Your task to perform on an android device: change the clock display to analog Image 0: 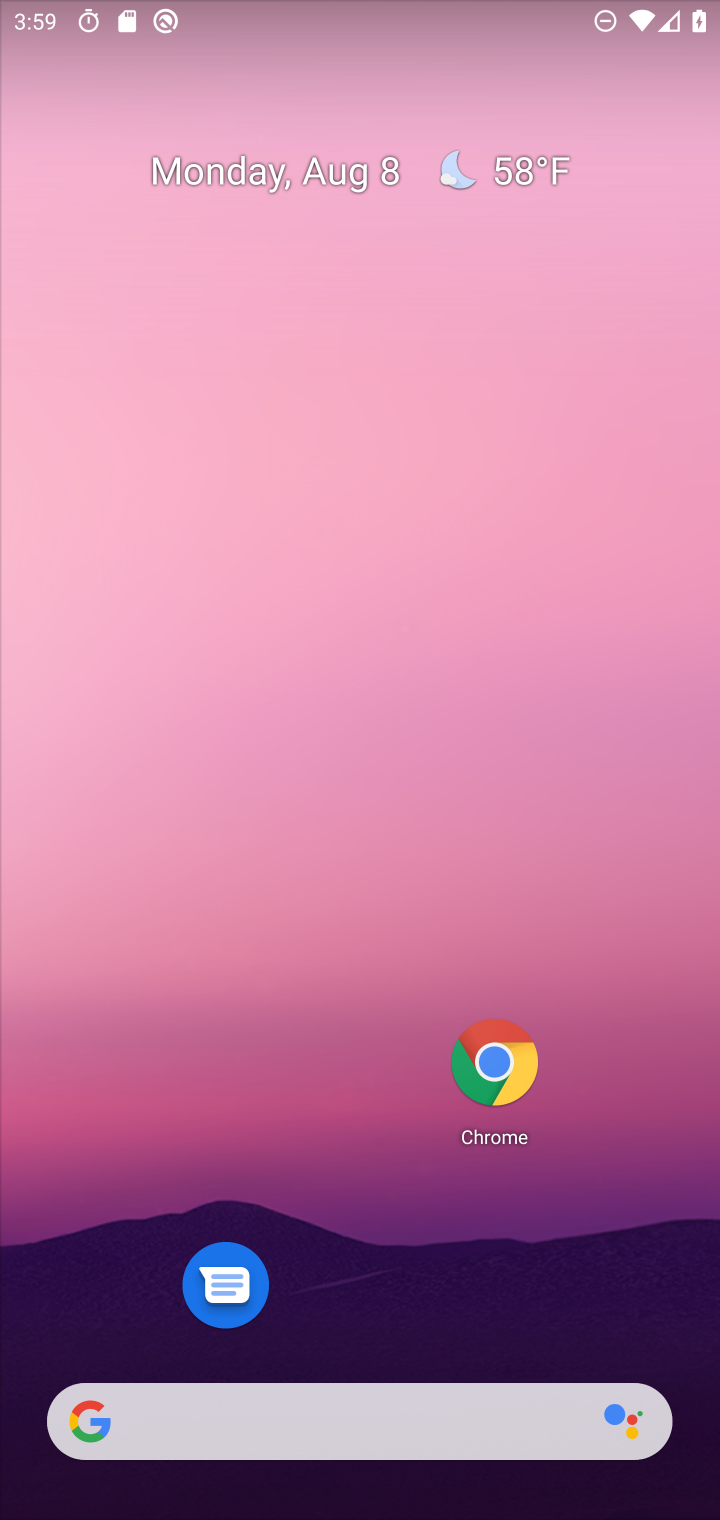
Step 0: drag from (354, 1360) to (401, 240)
Your task to perform on an android device: change the clock display to analog Image 1: 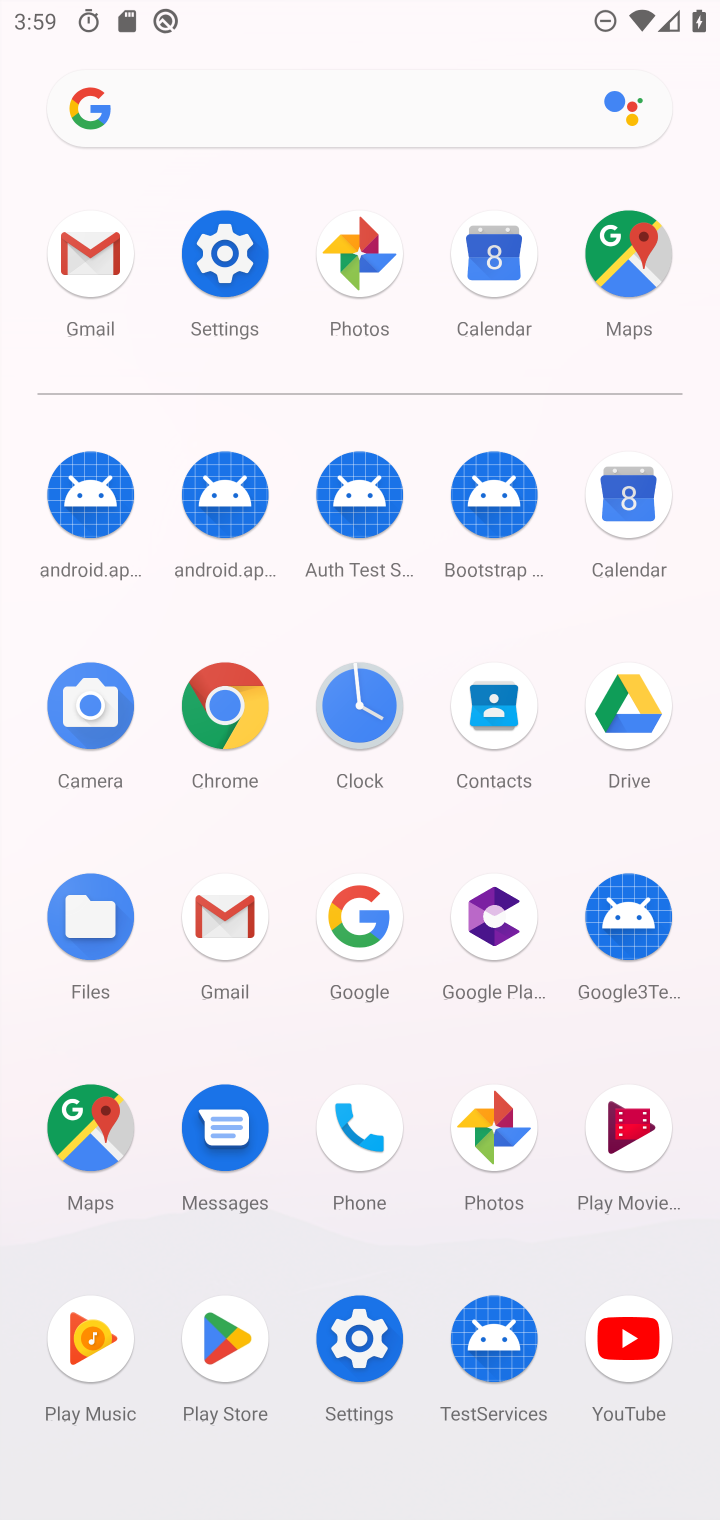
Step 1: click (355, 717)
Your task to perform on an android device: change the clock display to analog Image 2: 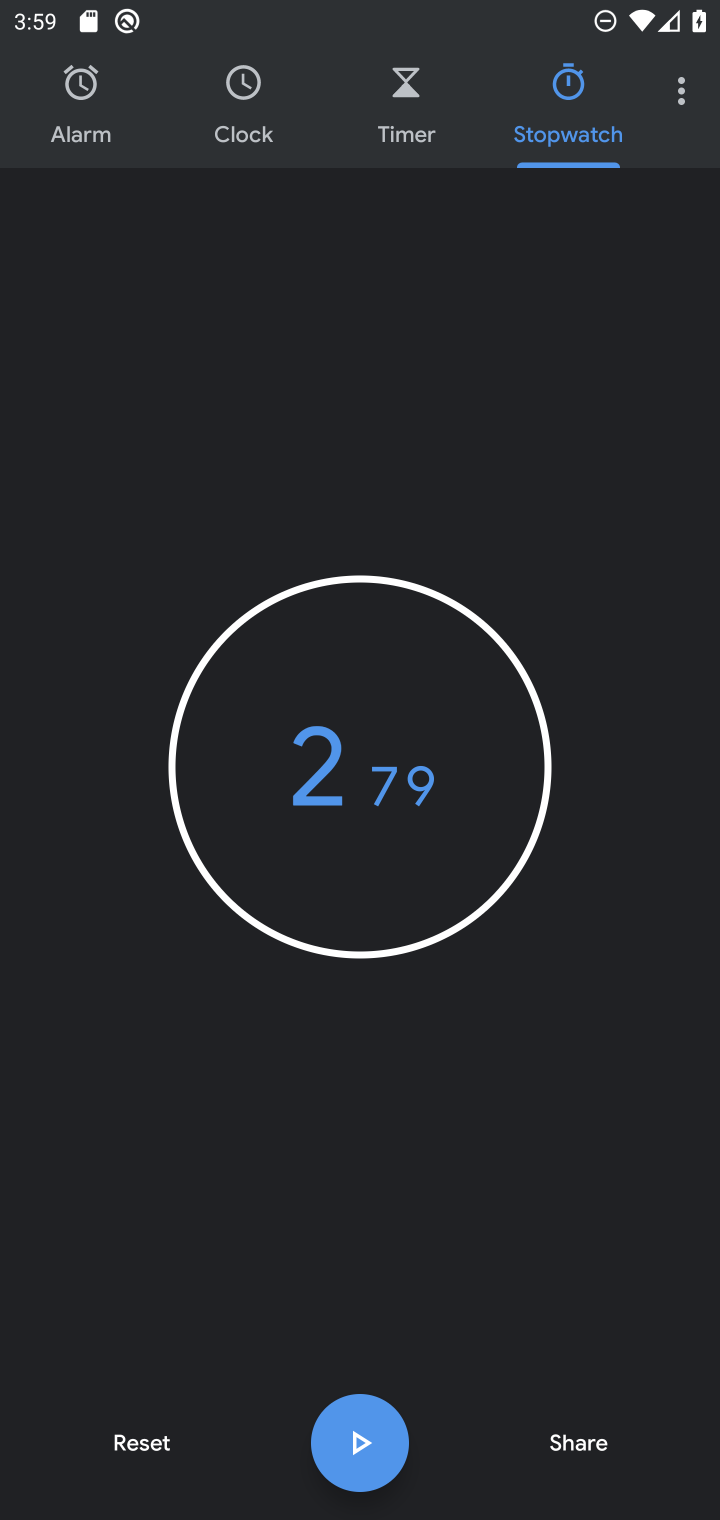
Step 2: click (668, 101)
Your task to perform on an android device: change the clock display to analog Image 3: 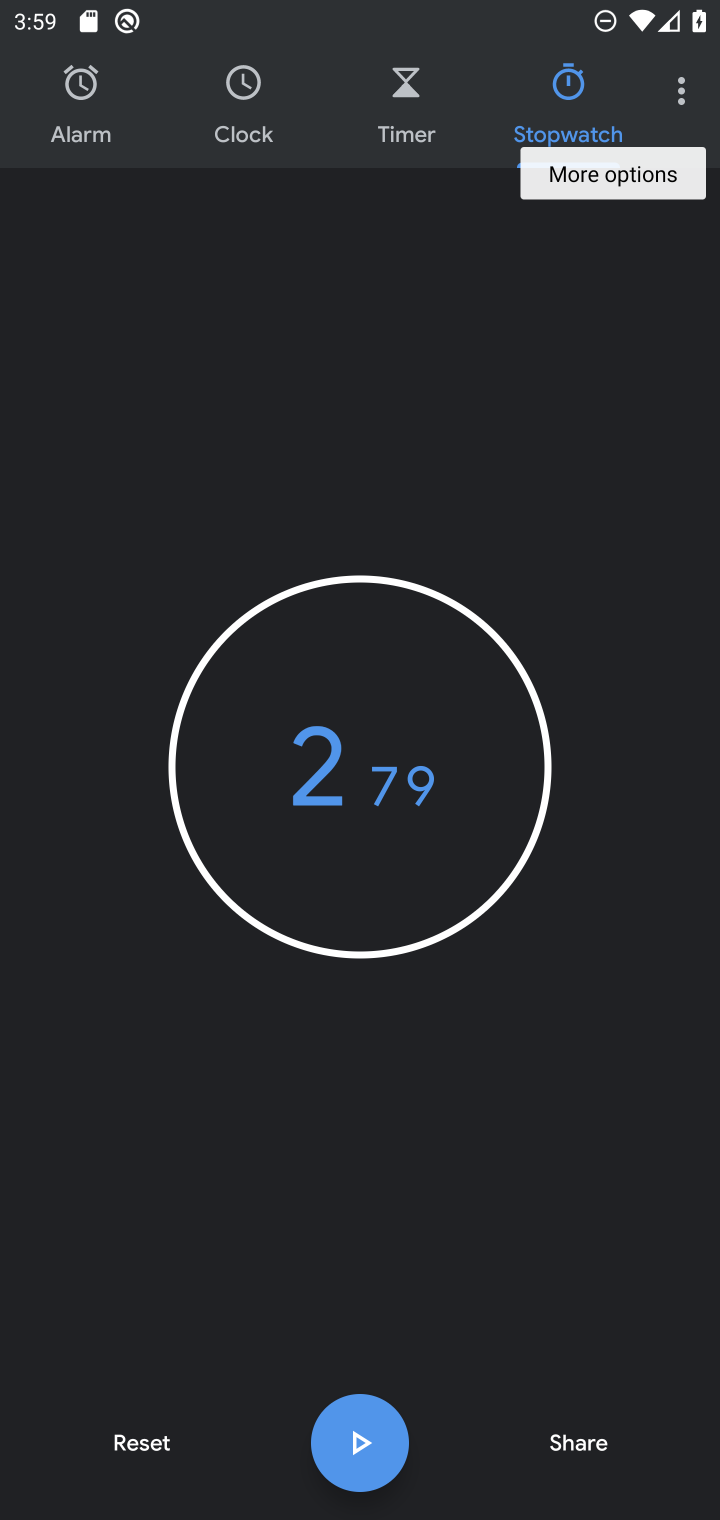
Step 3: click (698, 99)
Your task to perform on an android device: change the clock display to analog Image 4: 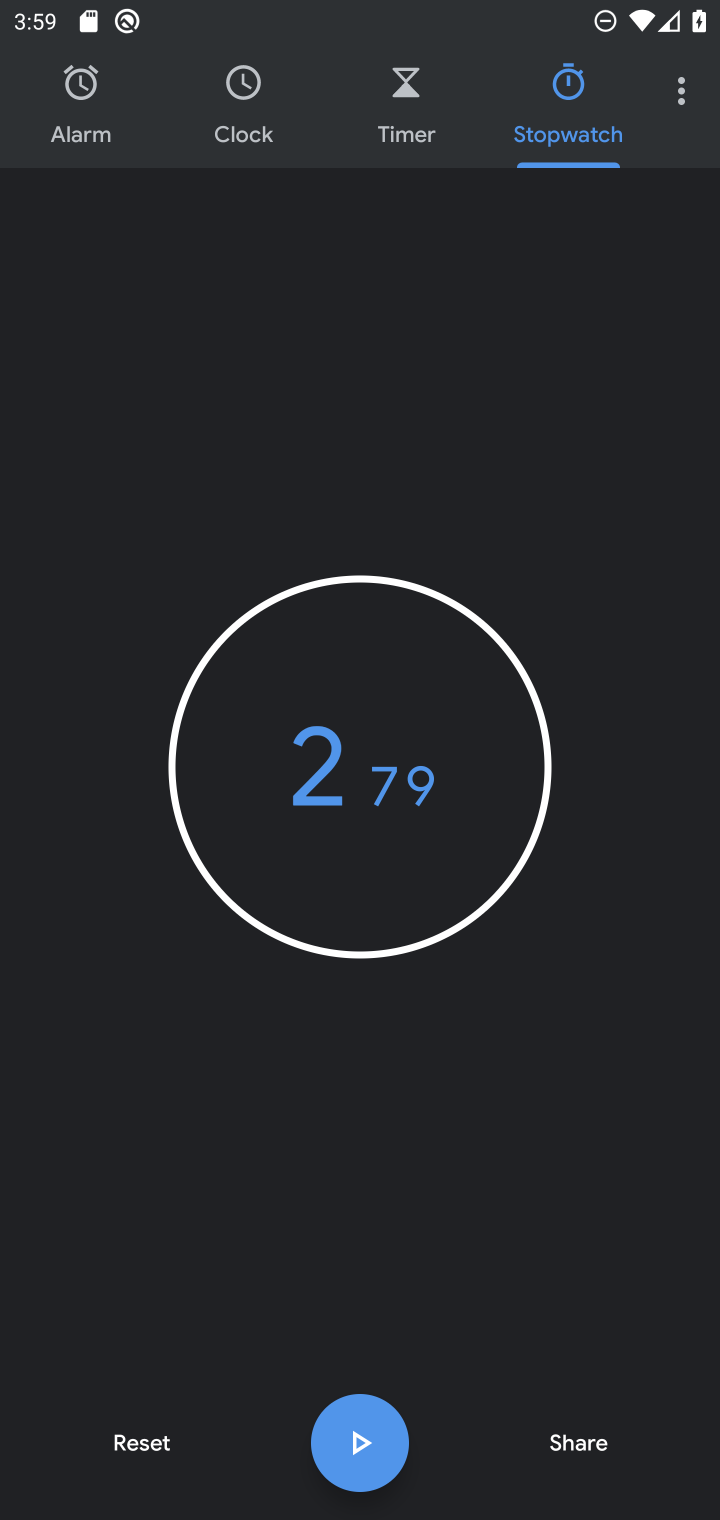
Step 4: click (683, 78)
Your task to perform on an android device: change the clock display to analog Image 5: 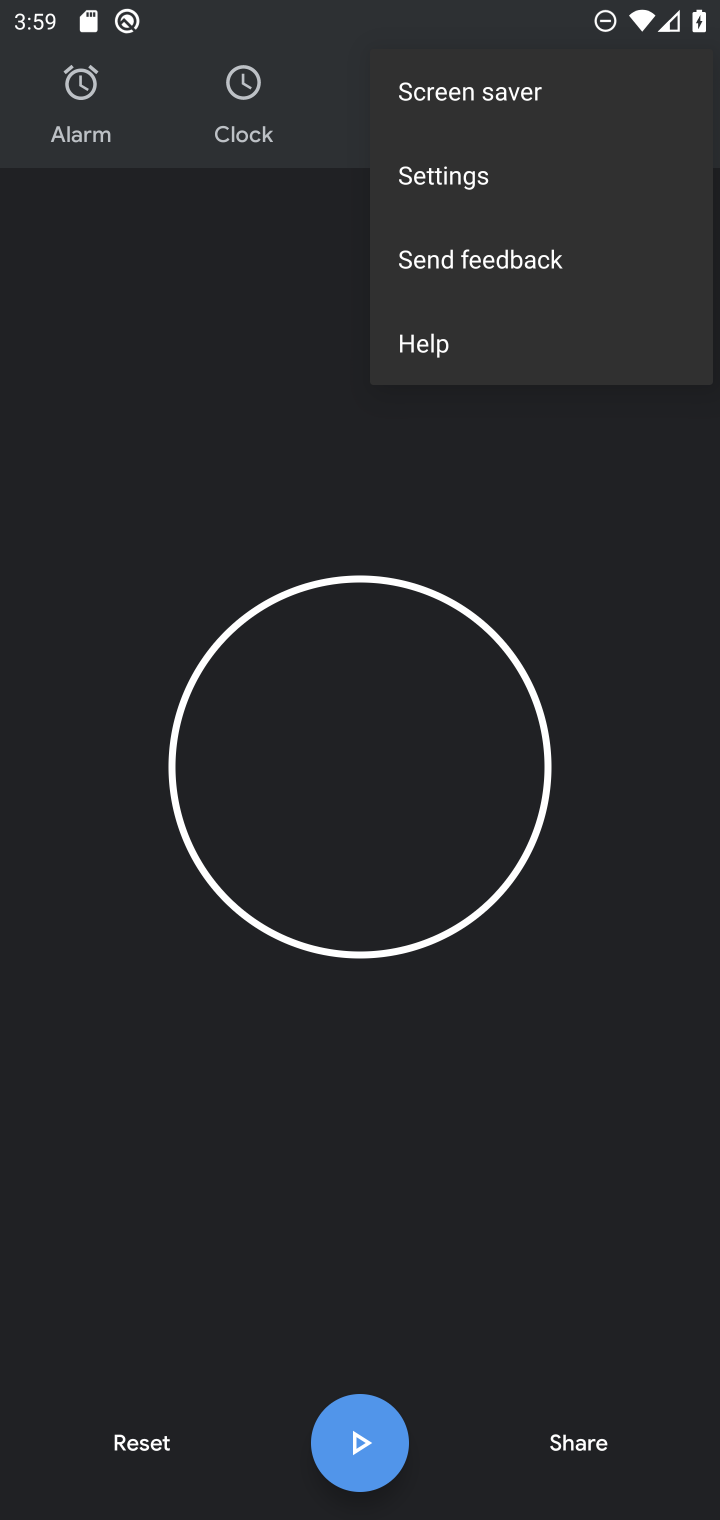
Step 5: click (490, 171)
Your task to perform on an android device: change the clock display to analog Image 6: 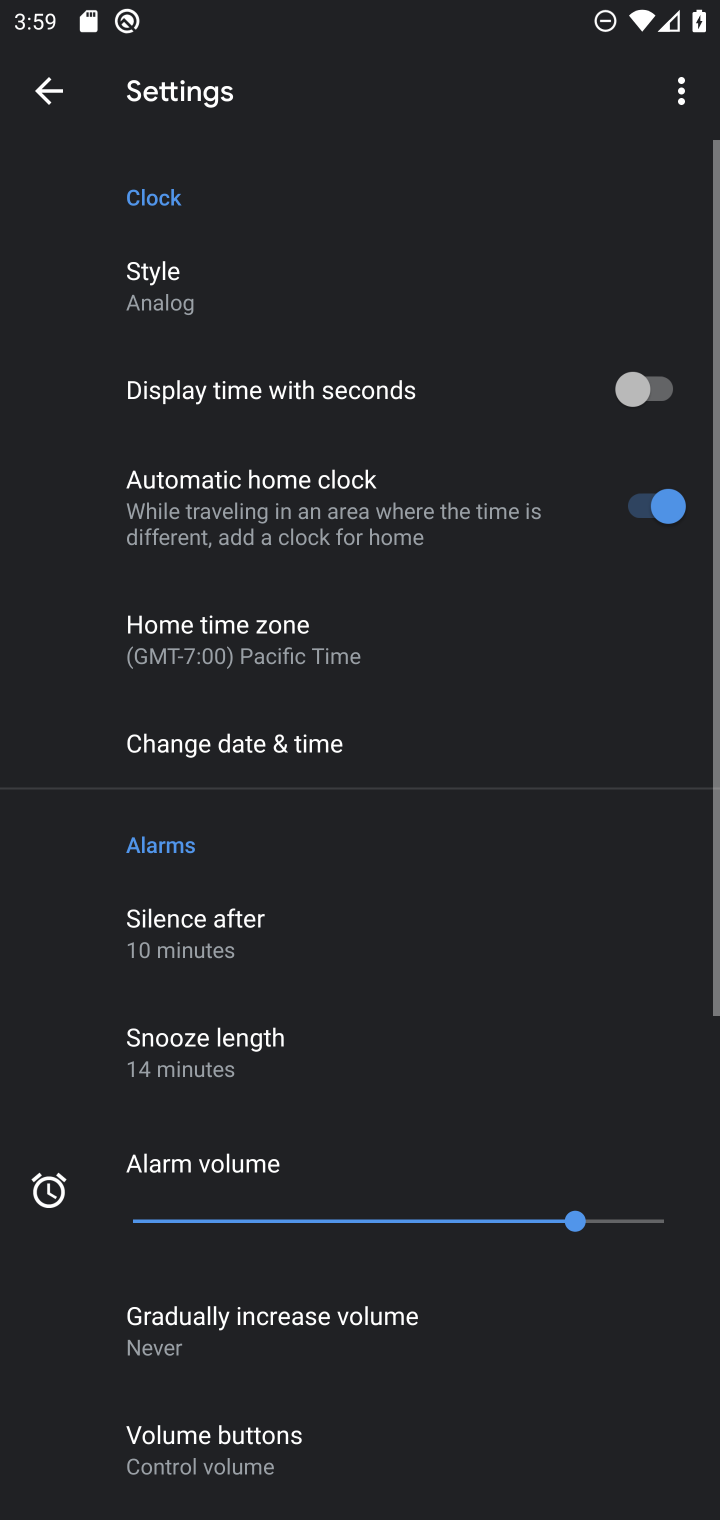
Step 6: click (221, 286)
Your task to perform on an android device: change the clock display to analog Image 7: 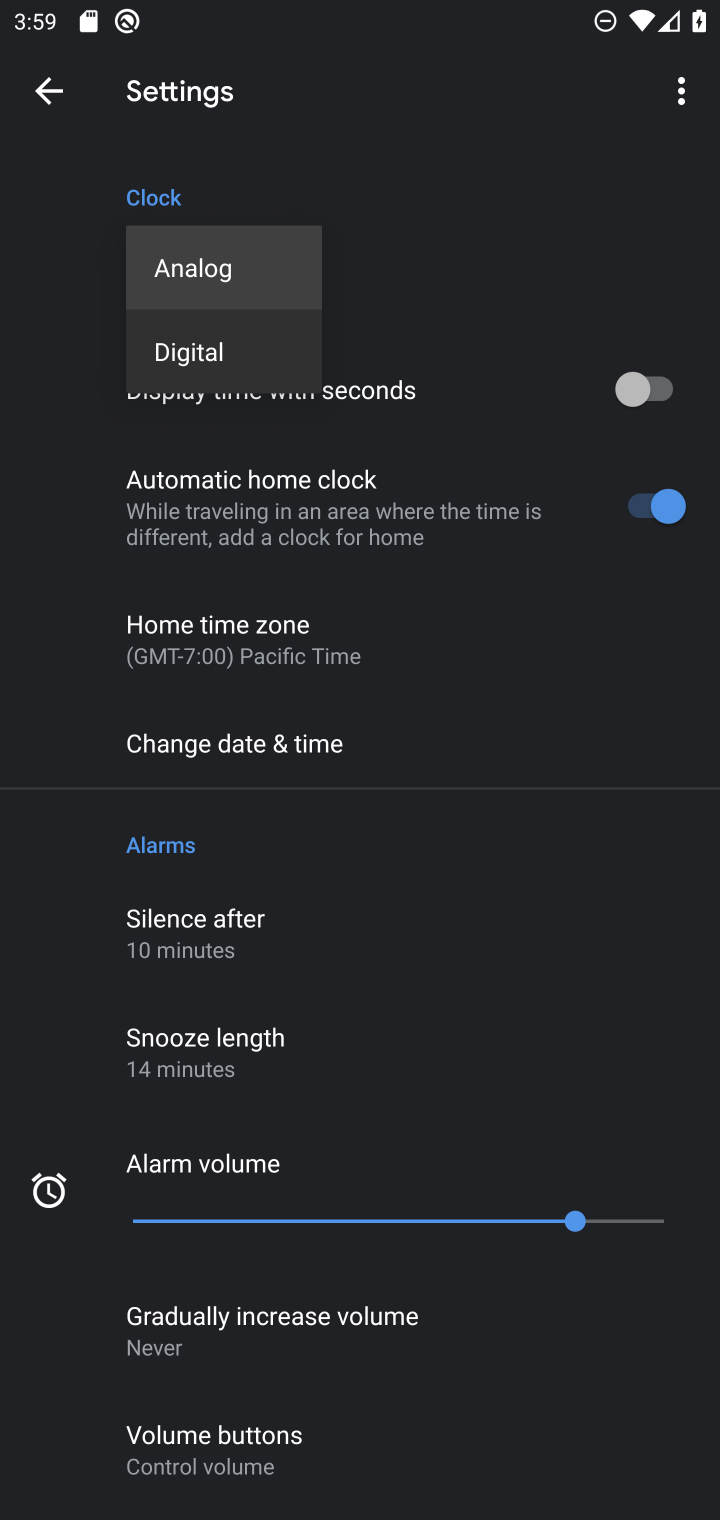
Step 7: click (269, 271)
Your task to perform on an android device: change the clock display to analog Image 8: 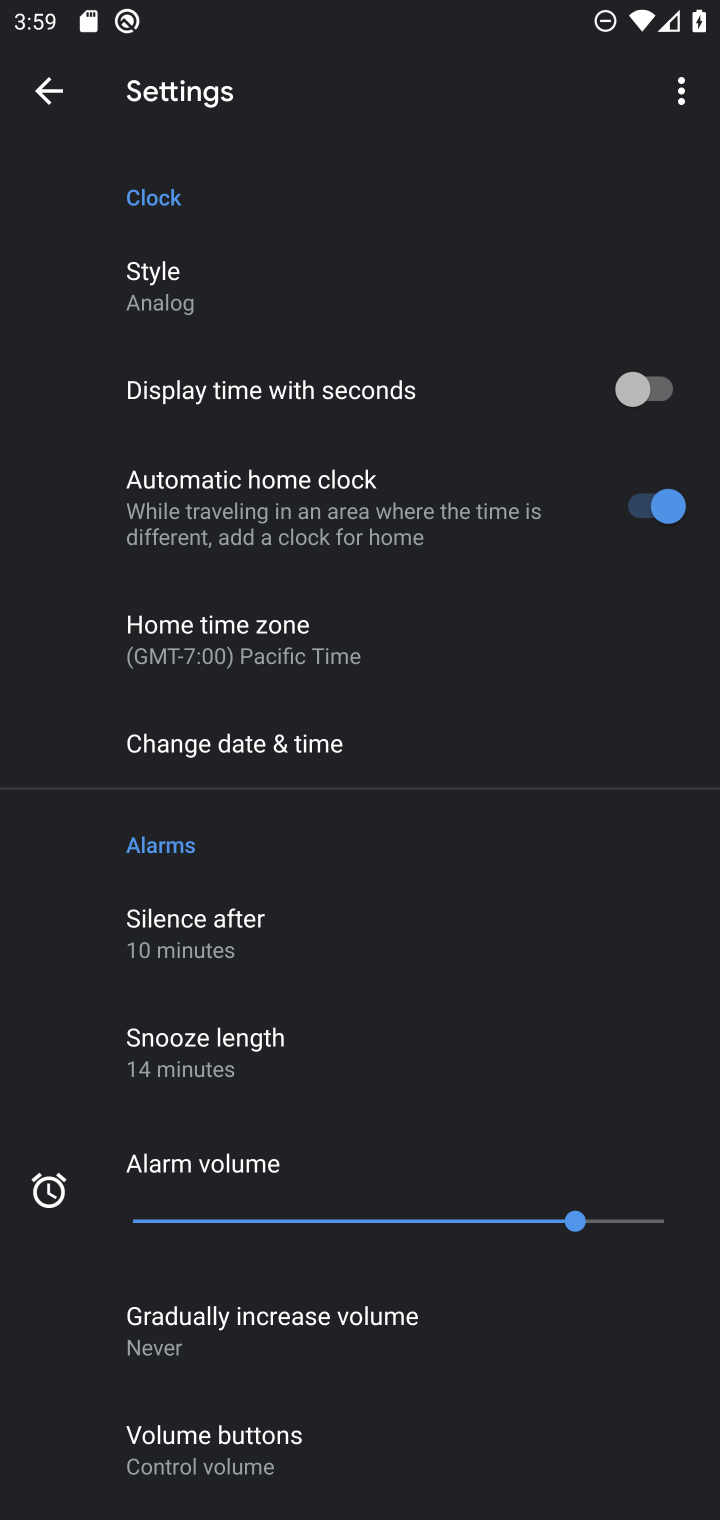
Step 8: task complete